Your task to perform on an android device: find photos in the google photos app Image 0: 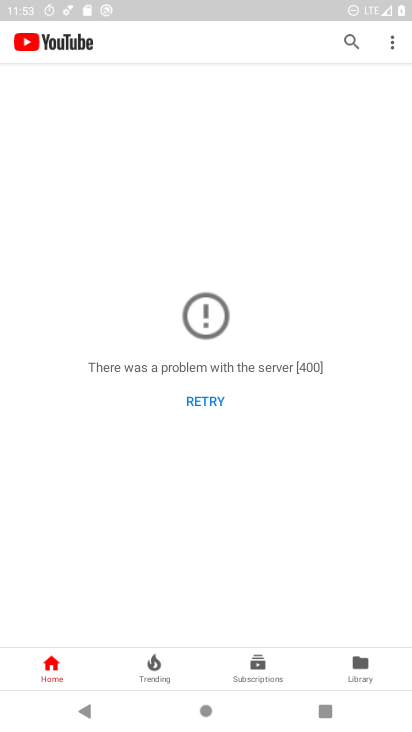
Step 0: press home button
Your task to perform on an android device: find photos in the google photos app Image 1: 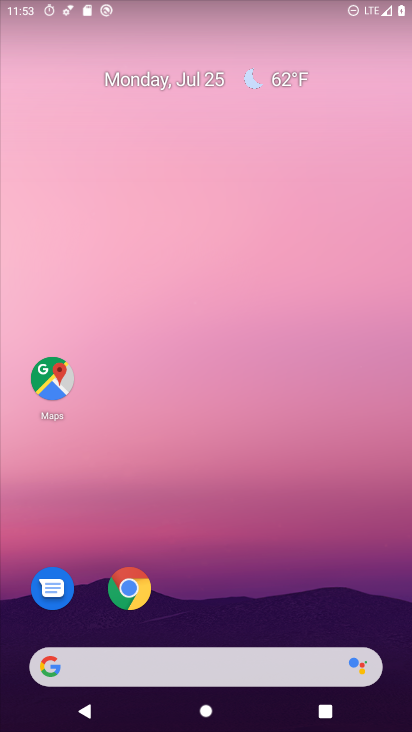
Step 1: drag from (60, 568) to (272, 78)
Your task to perform on an android device: find photos in the google photos app Image 2: 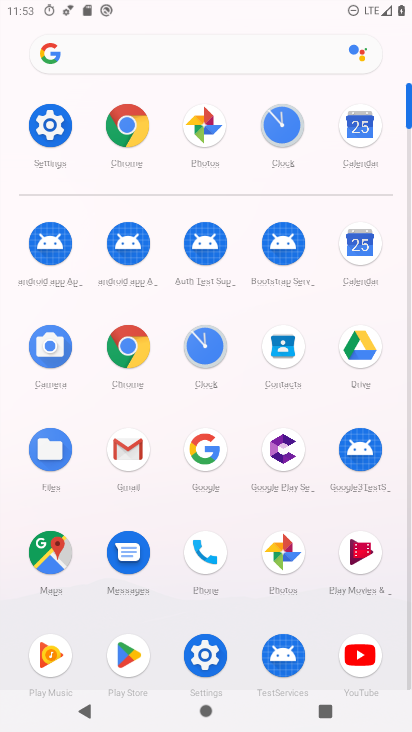
Step 2: click (199, 124)
Your task to perform on an android device: find photos in the google photos app Image 3: 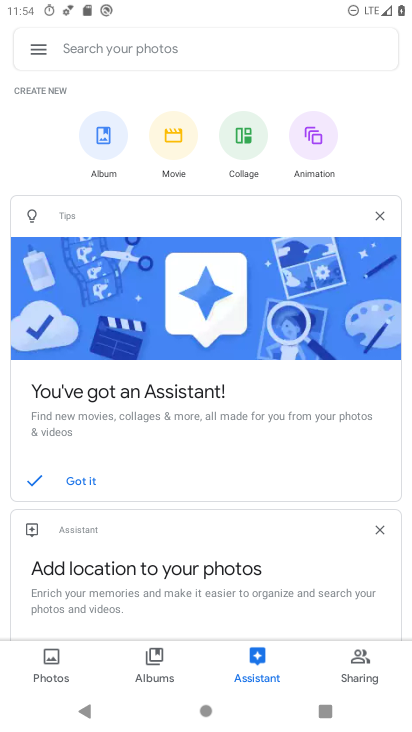
Step 3: click (39, 649)
Your task to perform on an android device: find photos in the google photos app Image 4: 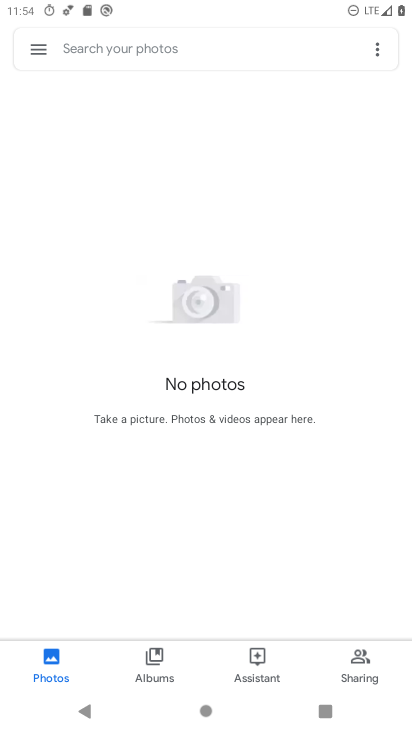
Step 4: task complete